Your task to perform on an android device: Open privacy settings Image 0: 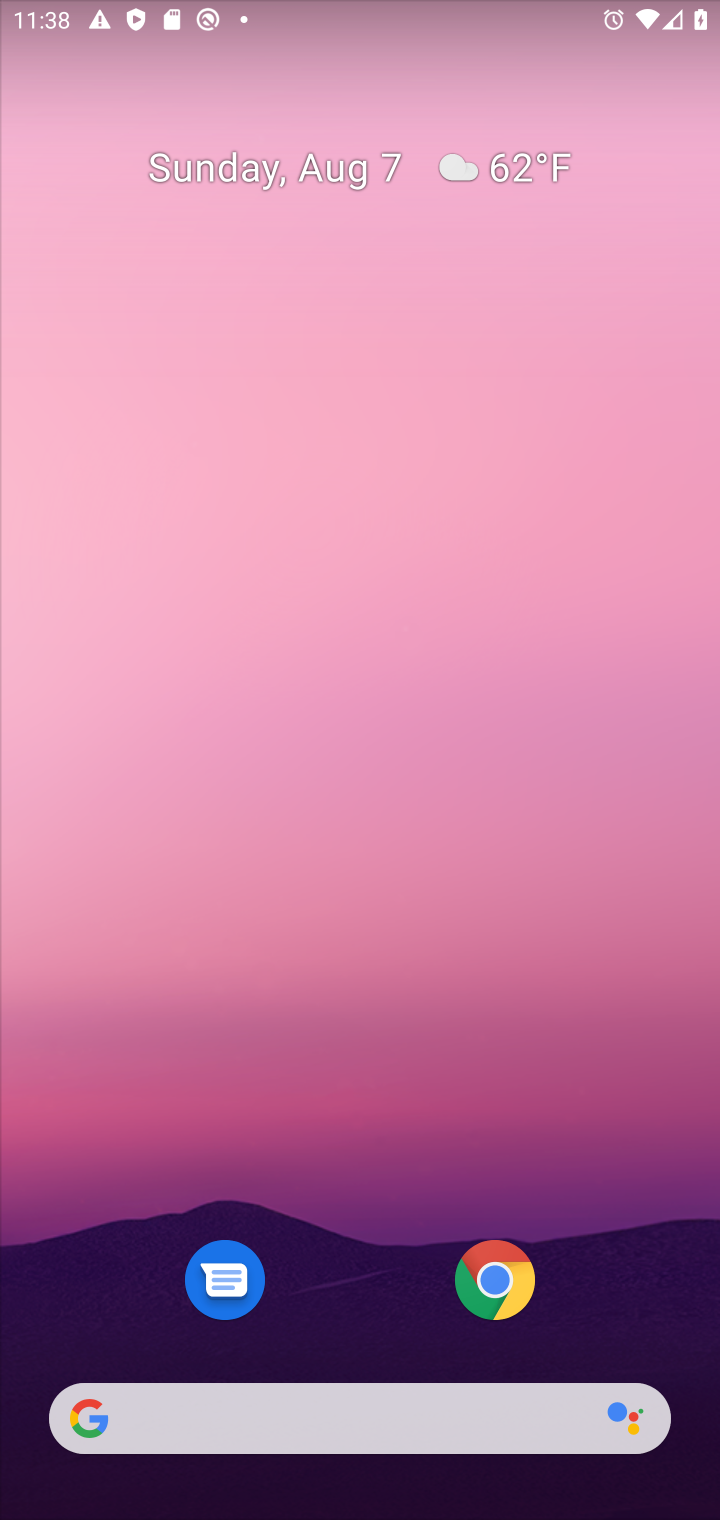
Step 0: drag from (385, 1341) to (385, 148)
Your task to perform on an android device: Open privacy settings Image 1: 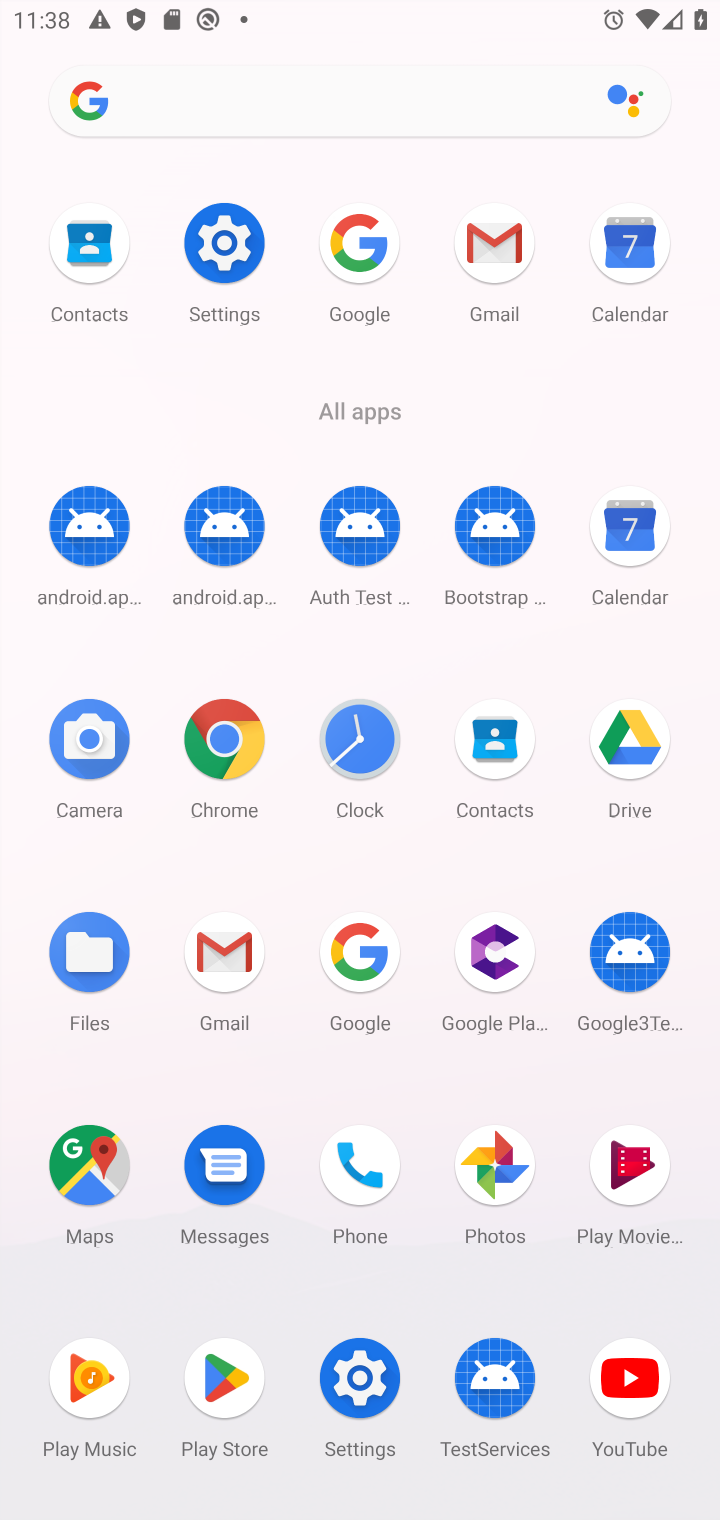
Step 1: click (371, 1363)
Your task to perform on an android device: Open privacy settings Image 2: 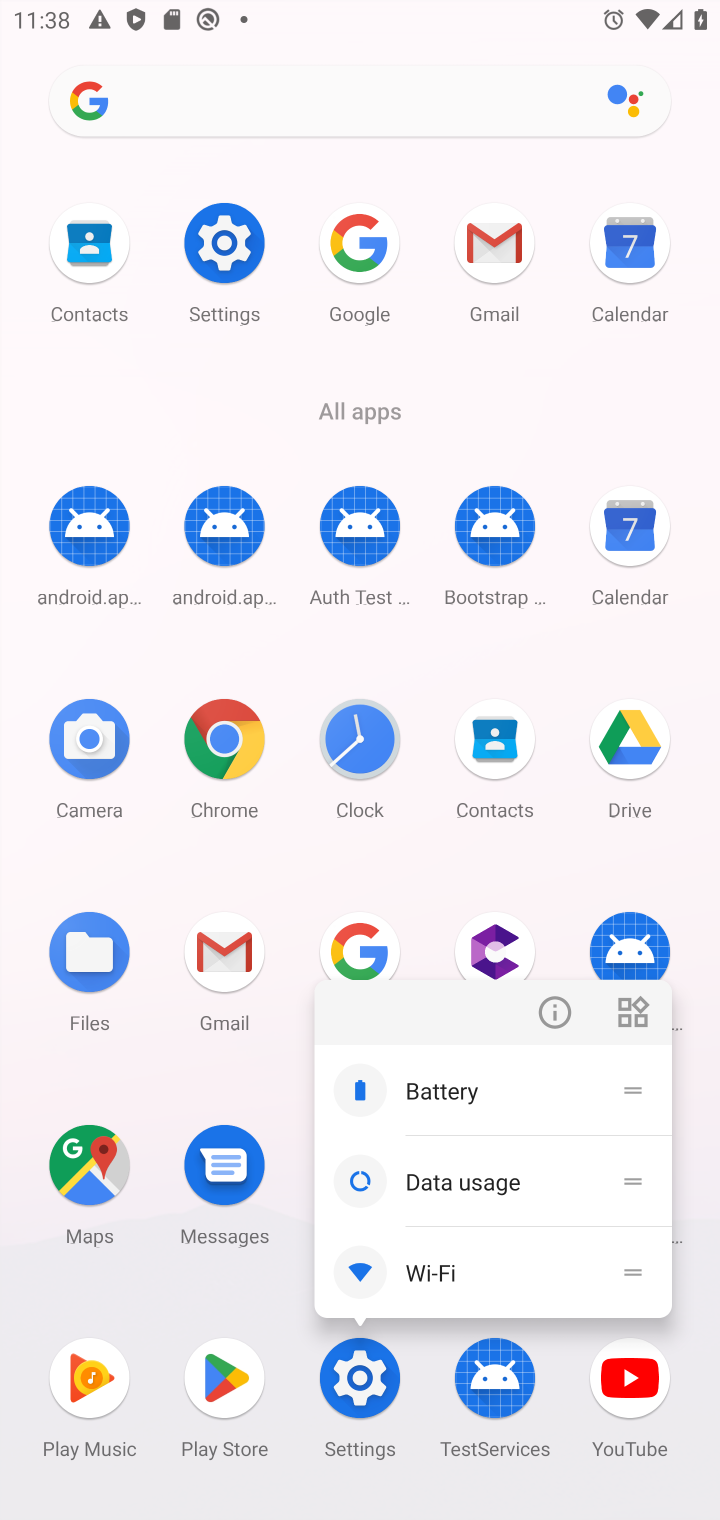
Step 2: click (346, 1391)
Your task to perform on an android device: Open privacy settings Image 3: 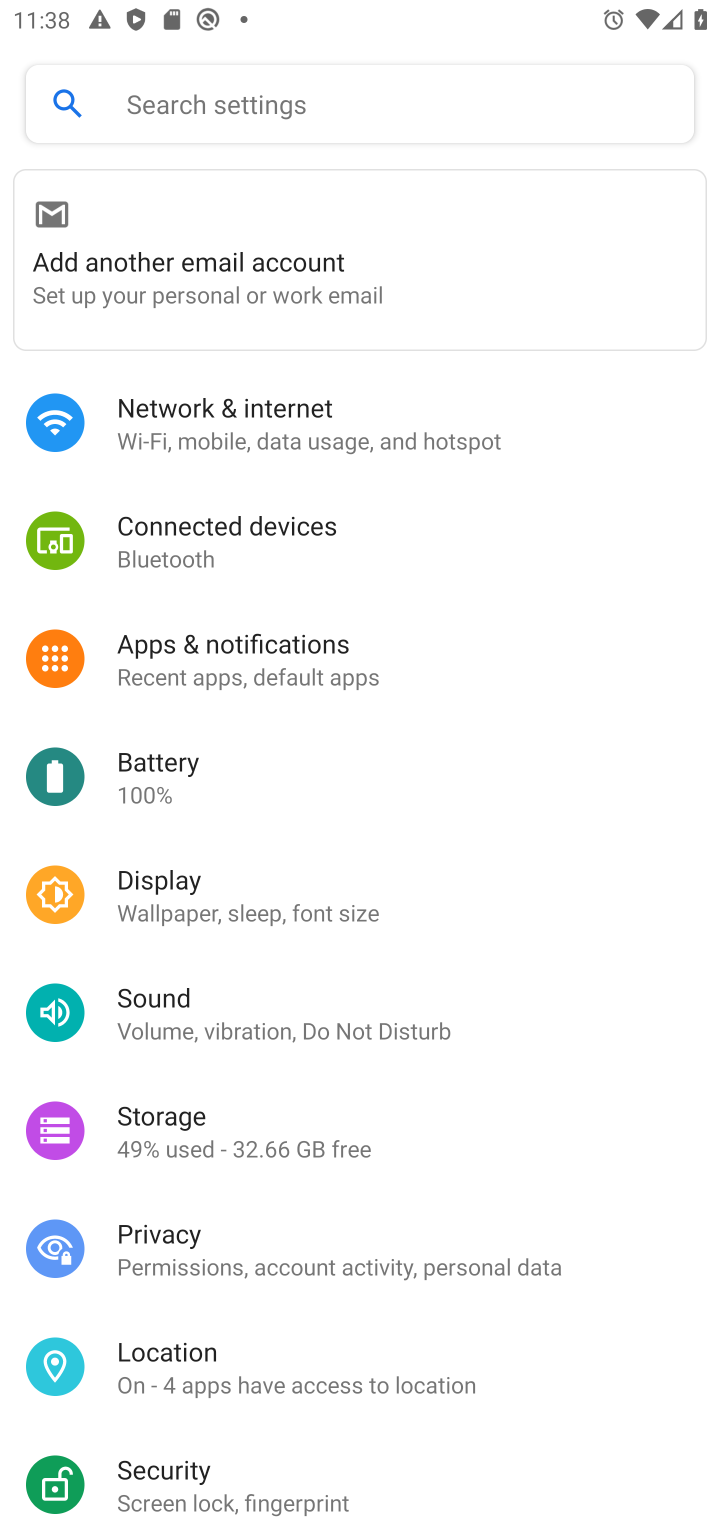
Step 3: click (170, 1255)
Your task to perform on an android device: Open privacy settings Image 4: 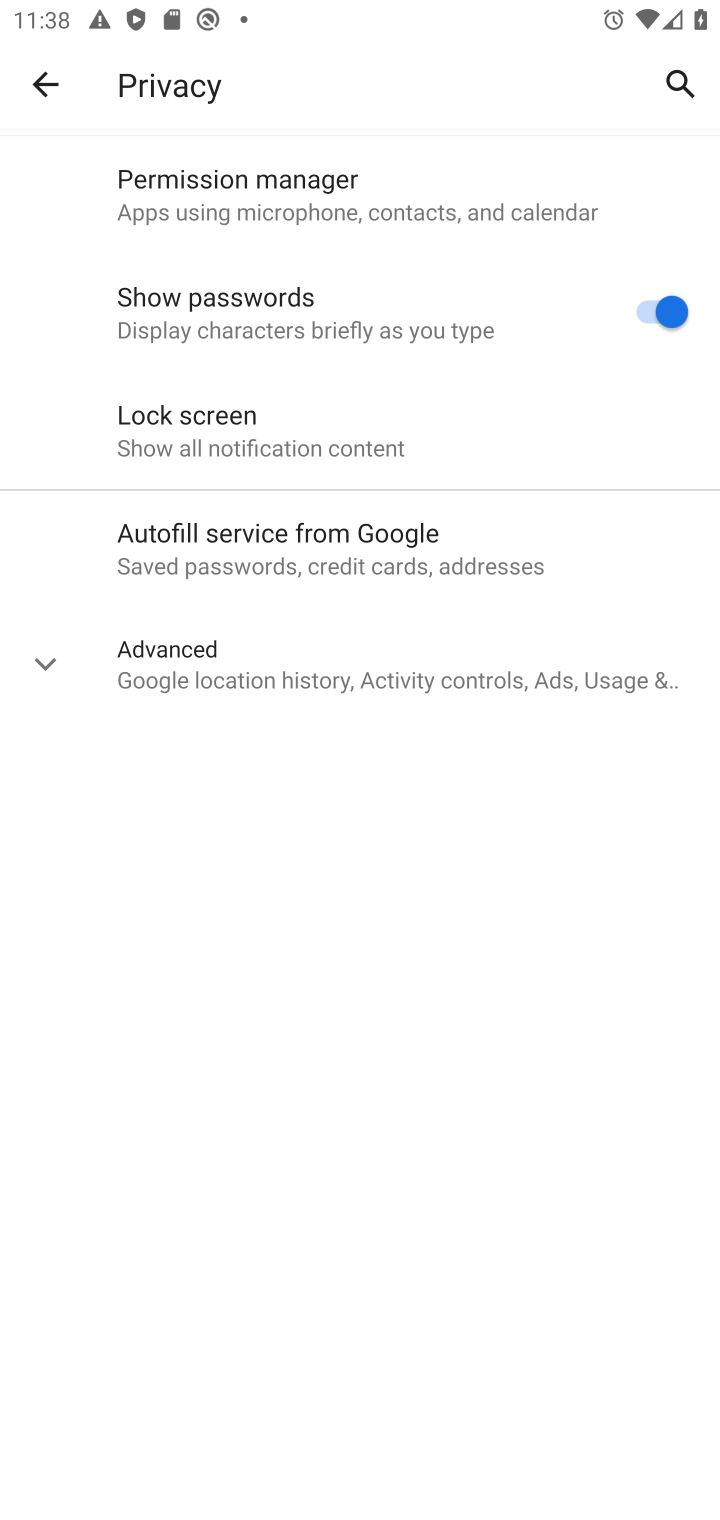
Step 4: task complete